Your task to perform on an android device: check storage Image 0: 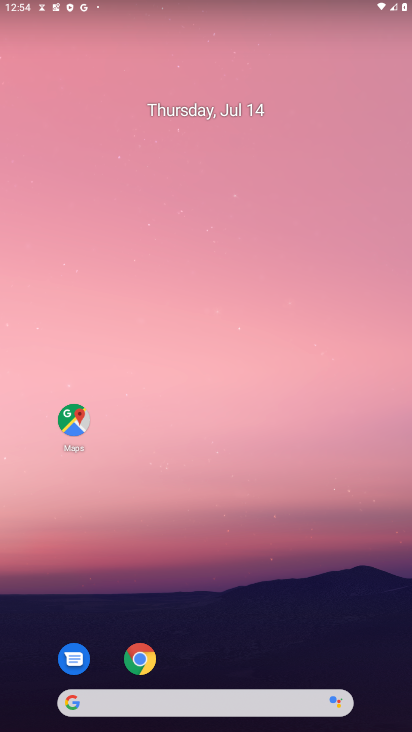
Step 0: drag from (77, 544) to (153, 309)
Your task to perform on an android device: check storage Image 1: 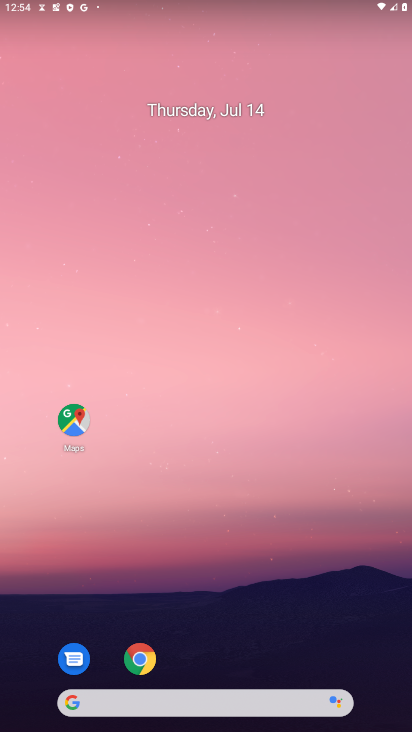
Step 1: drag from (62, 565) to (197, 126)
Your task to perform on an android device: check storage Image 2: 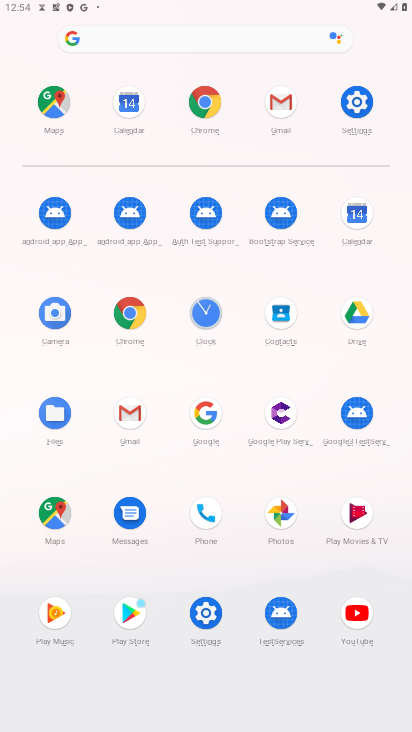
Step 2: click (218, 612)
Your task to perform on an android device: check storage Image 3: 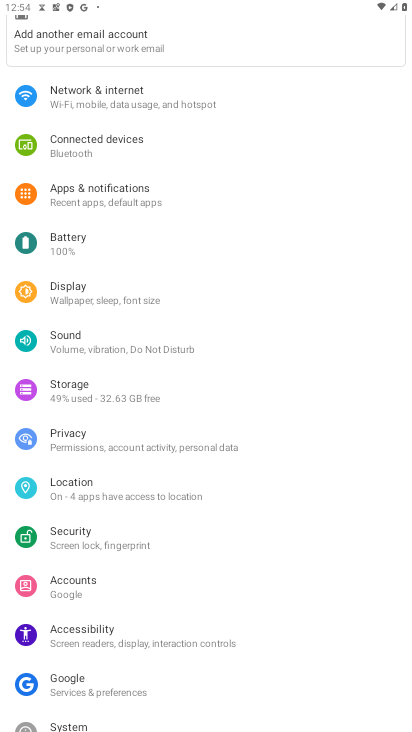
Step 3: click (59, 395)
Your task to perform on an android device: check storage Image 4: 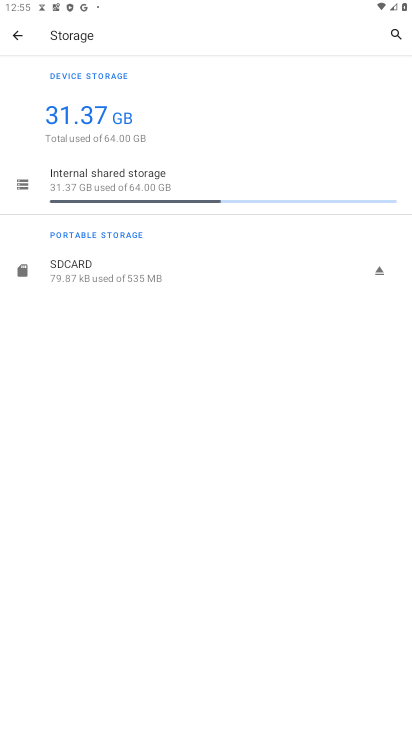
Step 4: task complete